Your task to perform on an android device: Go to Wikipedia Image 0: 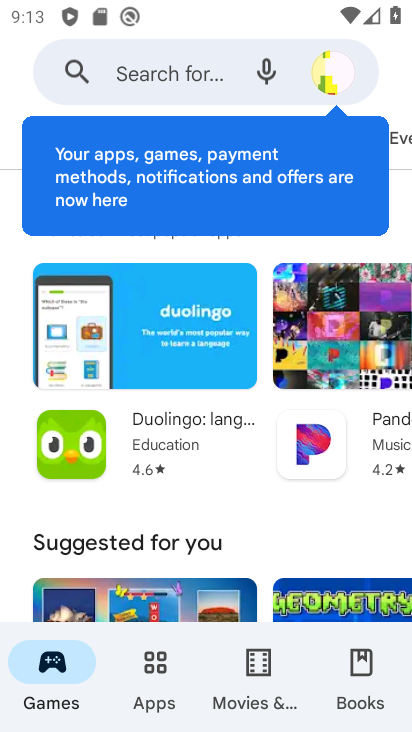
Step 0: press home button
Your task to perform on an android device: Go to Wikipedia Image 1: 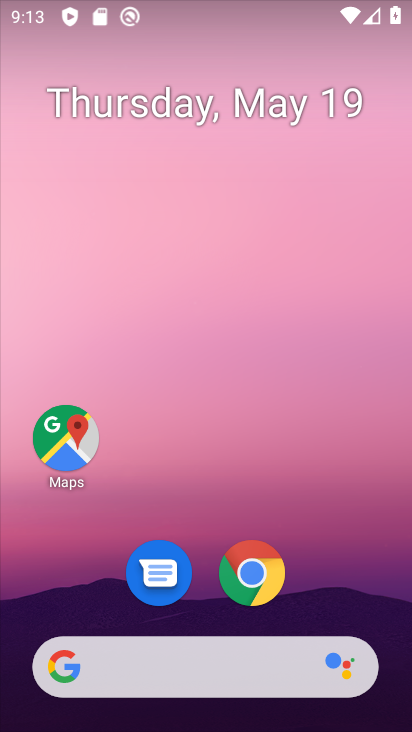
Step 1: click (250, 587)
Your task to perform on an android device: Go to Wikipedia Image 2: 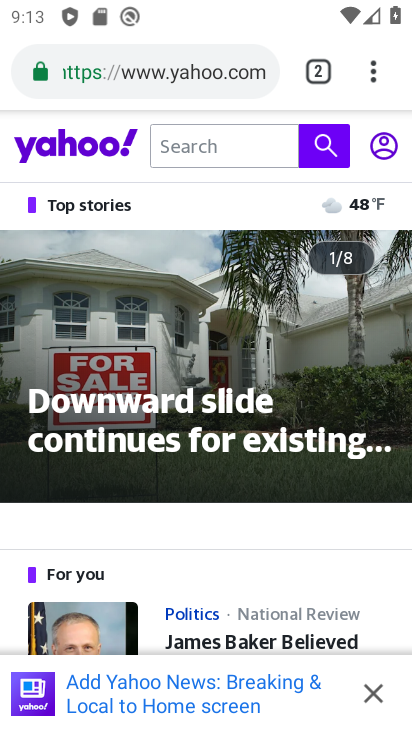
Step 2: click (309, 65)
Your task to perform on an android device: Go to Wikipedia Image 3: 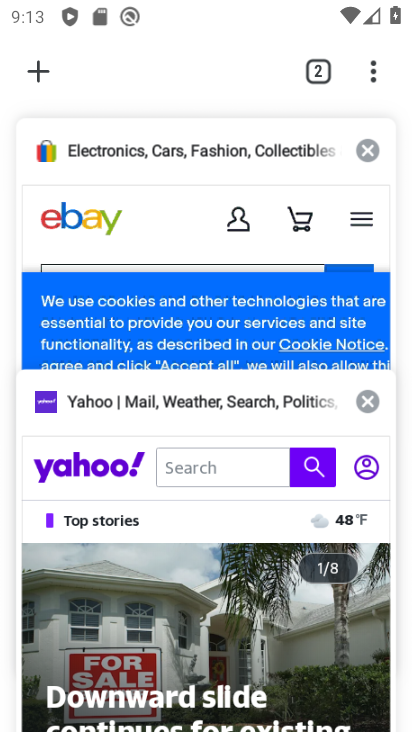
Step 3: click (27, 66)
Your task to perform on an android device: Go to Wikipedia Image 4: 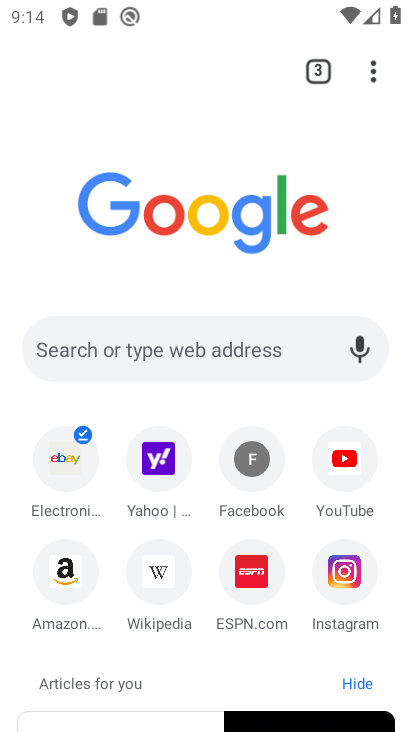
Step 4: click (191, 340)
Your task to perform on an android device: Go to Wikipedia Image 5: 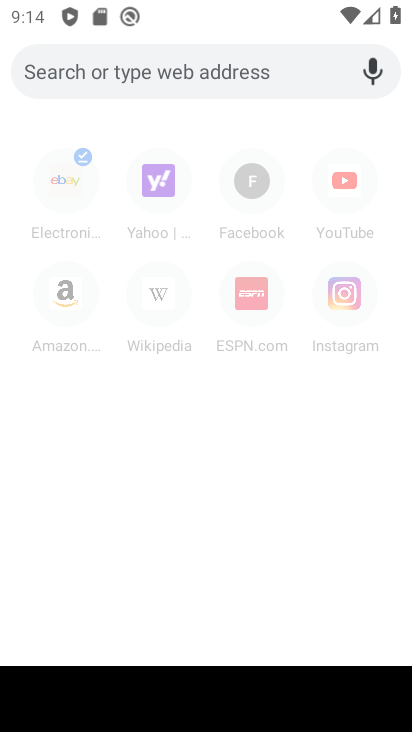
Step 5: type "Wikipedia"
Your task to perform on an android device: Go to Wikipedia Image 6: 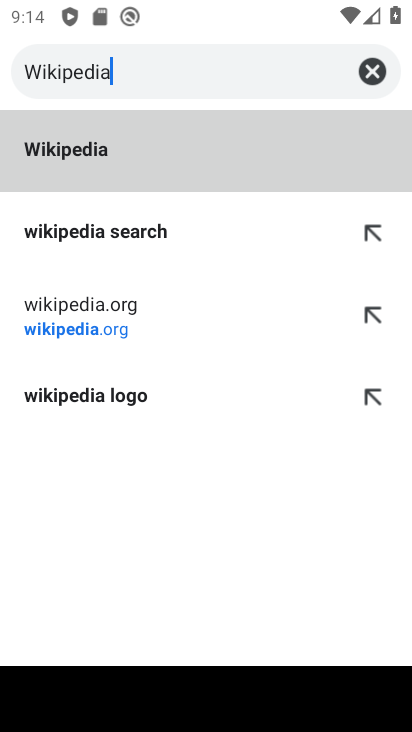
Step 6: click (55, 133)
Your task to perform on an android device: Go to Wikipedia Image 7: 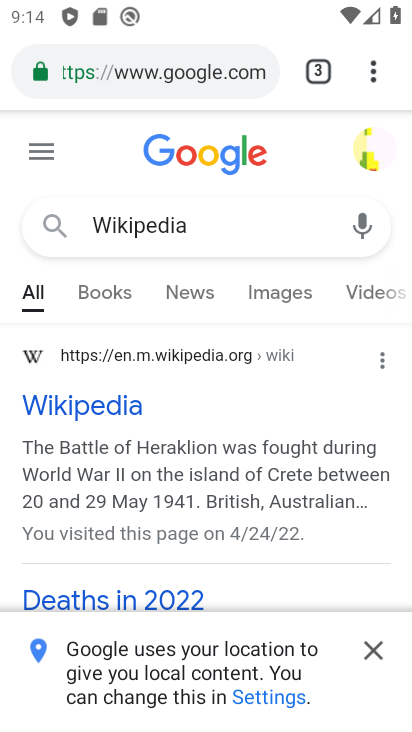
Step 7: click (47, 407)
Your task to perform on an android device: Go to Wikipedia Image 8: 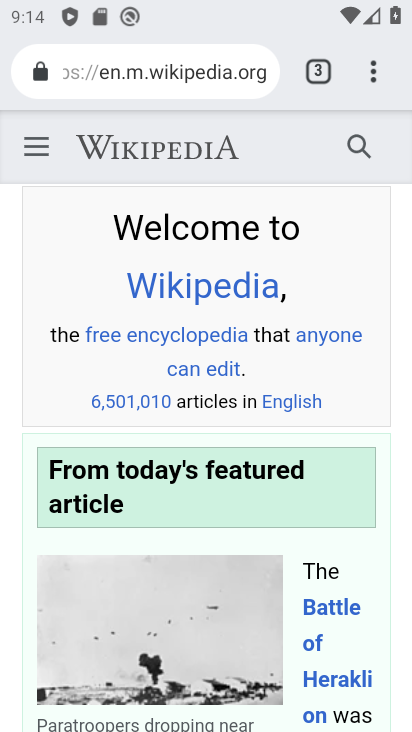
Step 8: task complete